Your task to perform on an android device: What's the weather going to be this weekend? Image 0: 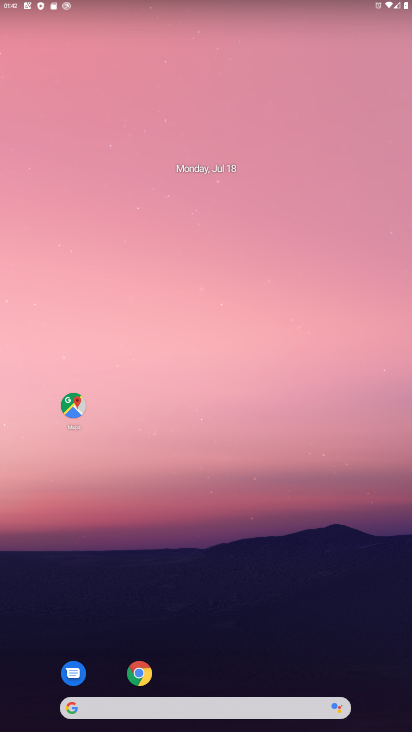
Step 0: click (269, 658)
Your task to perform on an android device: What's the weather going to be this weekend? Image 1: 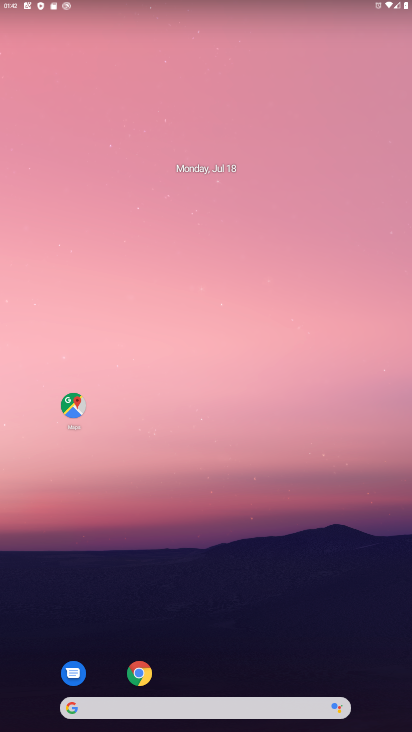
Step 1: click (227, 697)
Your task to perform on an android device: What's the weather going to be this weekend? Image 2: 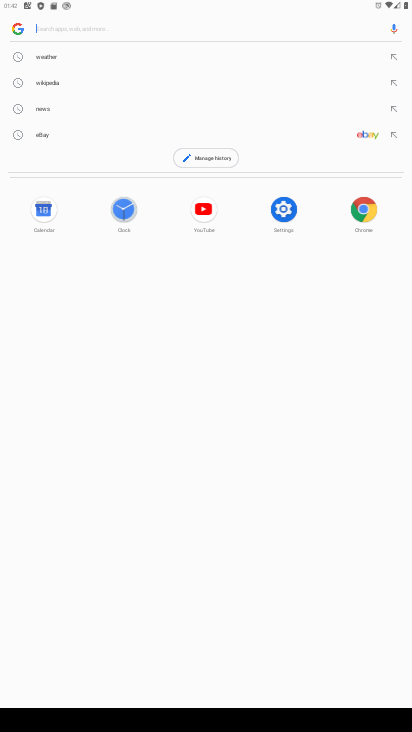
Step 2: click (72, 53)
Your task to perform on an android device: What's the weather going to be this weekend? Image 3: 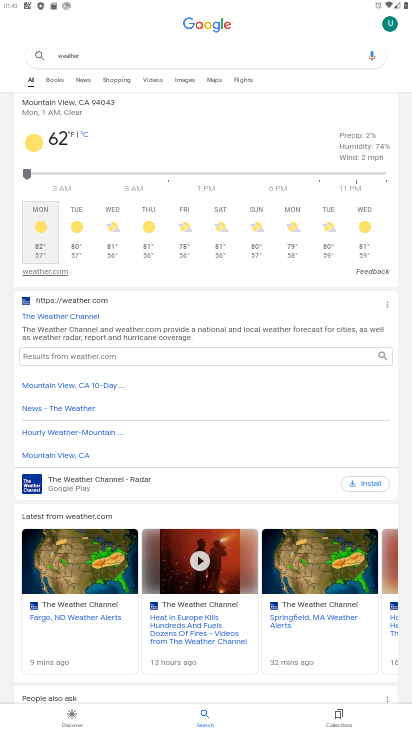
Step 3: task complete